Your task to perform on an android device: visit the assistant section in the google photos Image 0: 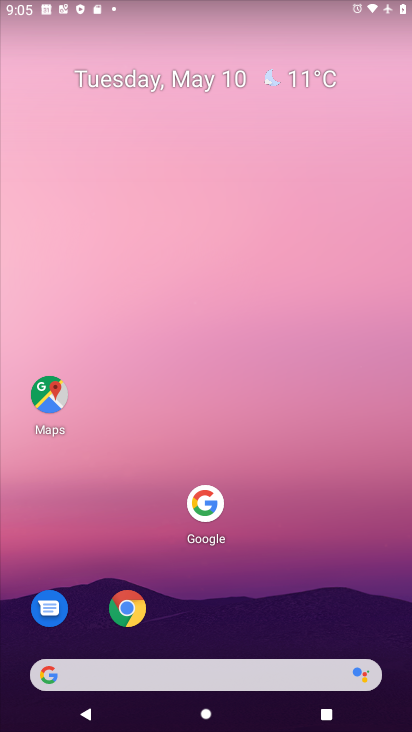
Step 0: drag from (243, 677) to (376, 65)
Your task to perform on an android device: visit the assistant section in the google photos Image 1: 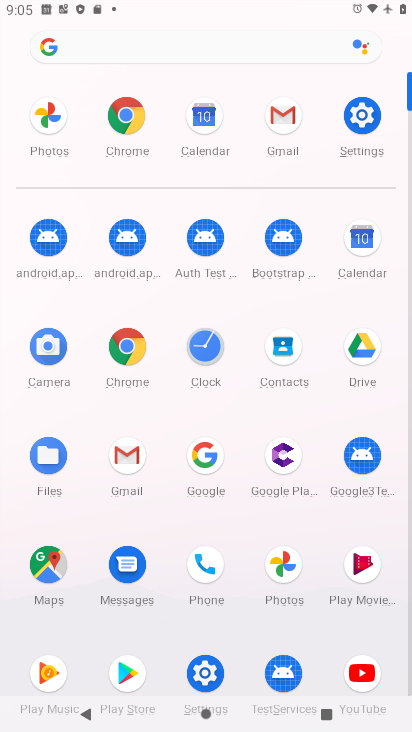
Step 1: click (274, 557)
Your task to perform on an android device: visit the assistant section in the google photos Image 2: 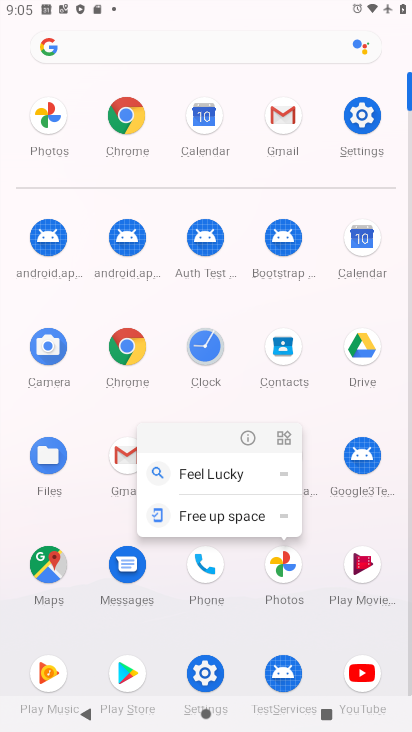
Step 2: click (286, 566)
Your task to perform on an android device: visit the assistant section in the google photos Image 3: 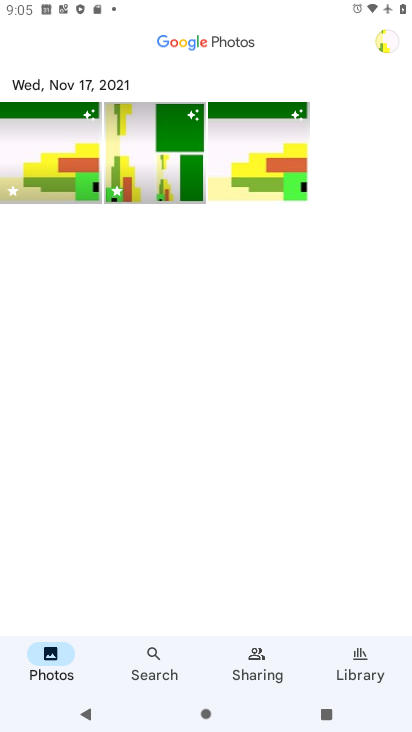
Step 3: click (351, 679)
Your task to perform on an android device: visit the assistant section in the google photos Image 4: 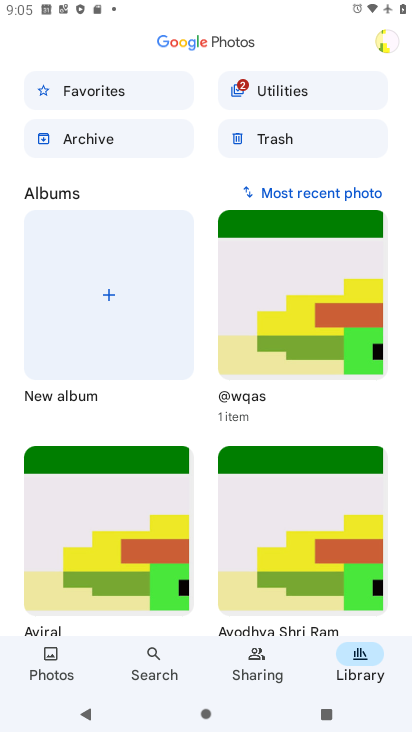
Step 4: task complete